Your task to perform on an android device: Go to display settings Image 0: 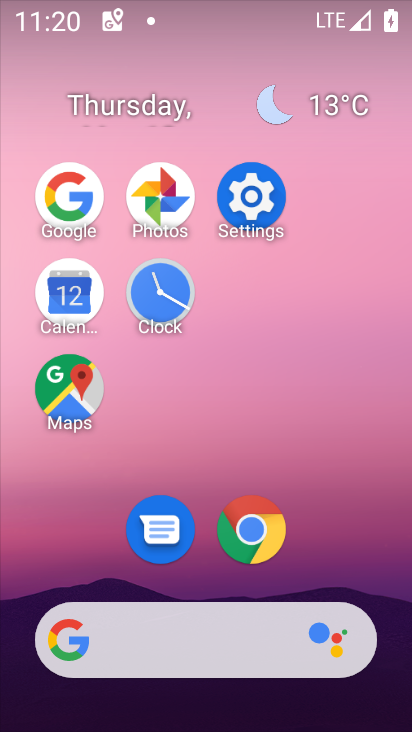
Step 0: click (259, 186)
Your task to perform on an android device: Go to display settings Image 1: 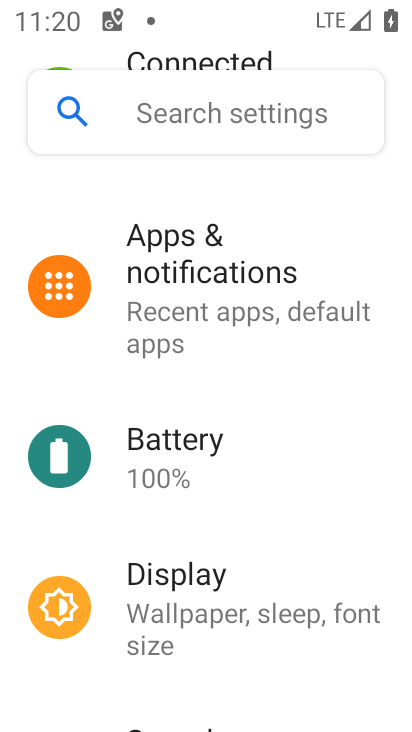
Step 1: click (216, 563)
Your task to perform on an android device: Go to display settings Image 2: 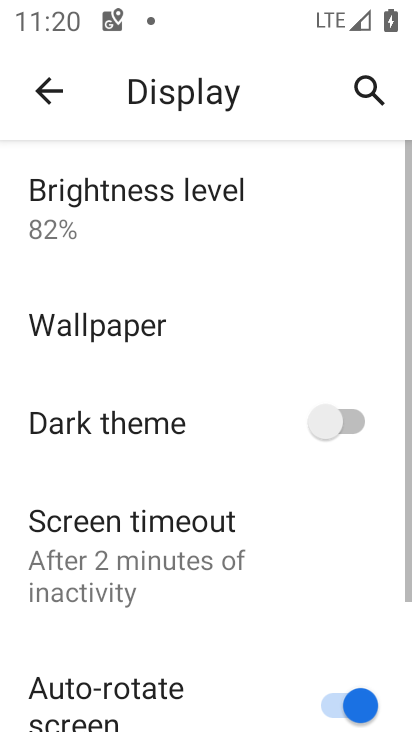
Step 2: task complete